Your task to perform on an android device: allow cookies in the chrome app Image 0: 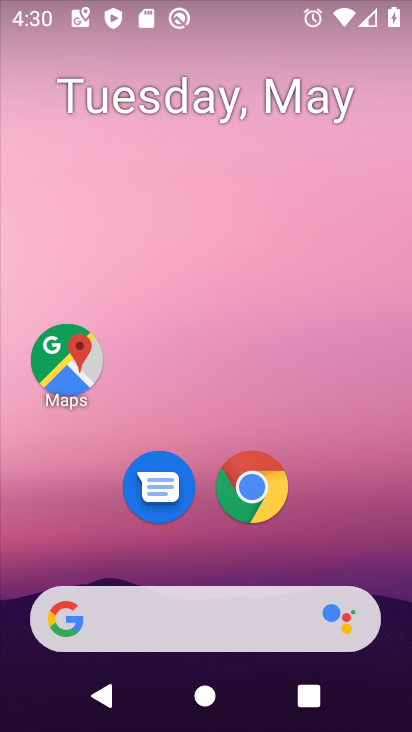
Step 0: click (251, 482)
Your task to perform on an android device: allow cookies in the chrome app Image 1: 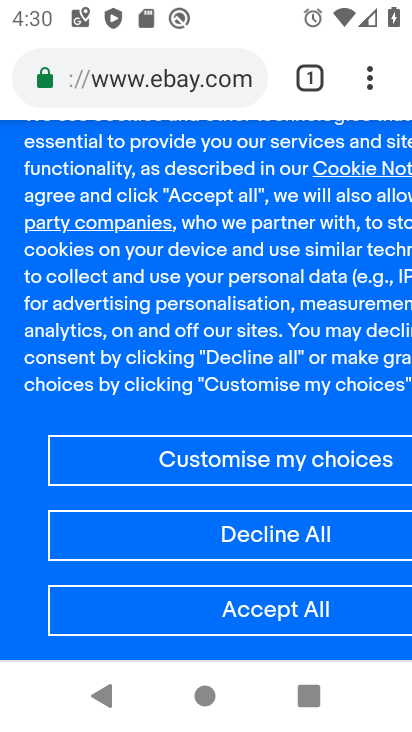
Step 1: drag from (368, 84) to (160, 540)
Your task to perform on an android device: allow cookies in the chrome app Image 2: 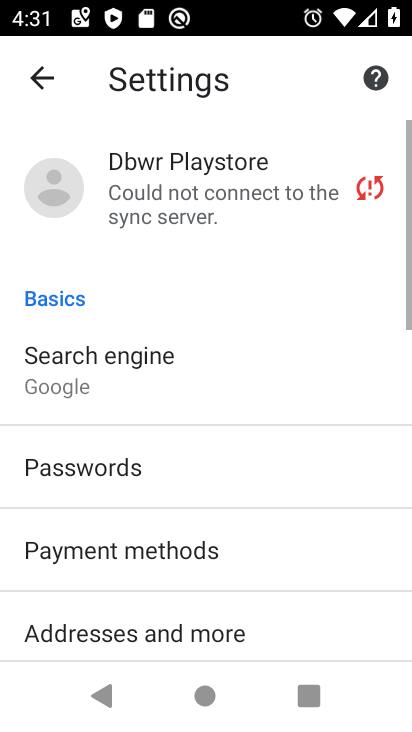
Step 2: drag from (191, 564) to (336, 79)
Your task to perform on an android device: allow cookies in the chrome app Image 3: 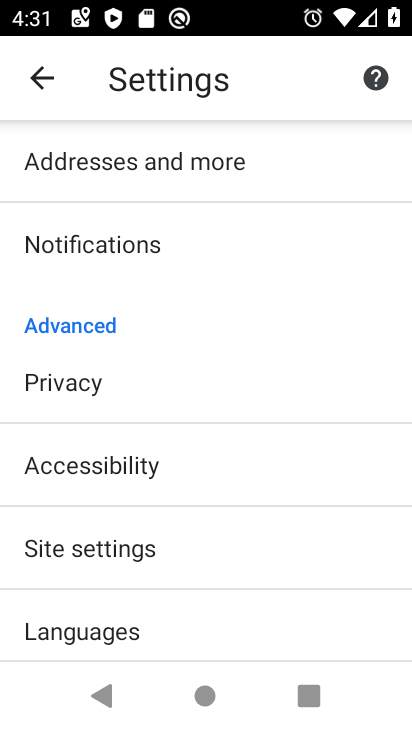
Step 3: click (149, 537)
Your task to perform on an android device: allow cookies in the chrome app Image 4: 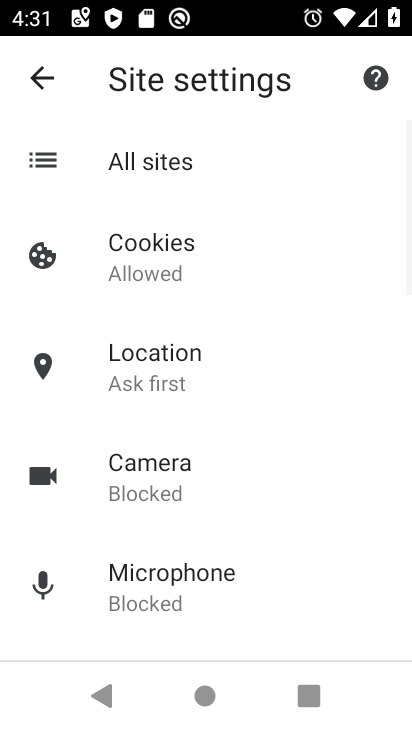
Step 4: drag from (212, 550) to (307, 177)
Your task to perform on an android device: allow cookies in the chrome app Image 5: 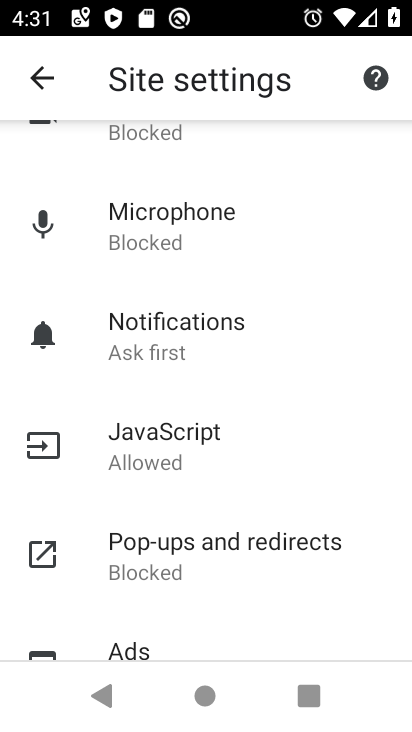
Step 5: drag from (207, 459) to (317, 249)
Your task to perform on an android device: allow cookies in the chrome app Image 6: 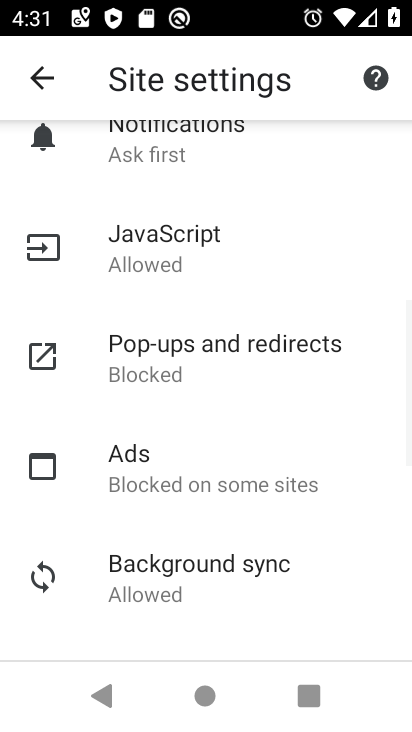
Step 6: drag from (195, 495) to (172, 635)
Your task to perform on an android device: allow cookies in the chrome app Image 7: 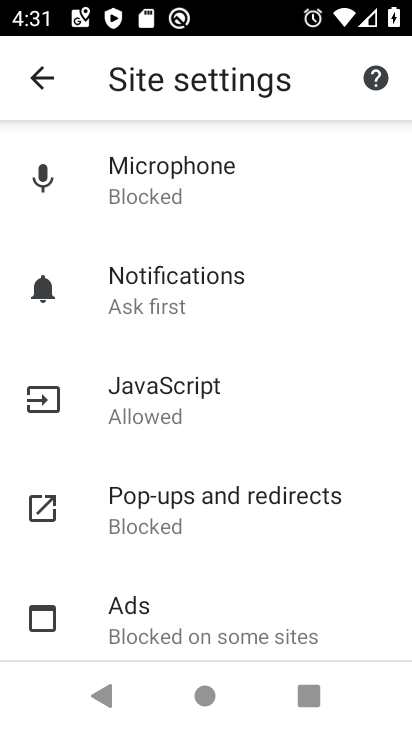
Step 7: drag from (196, 312) to (180, 561)
Your task to perform on an android device: allow cookies in the chrome app Image 8: 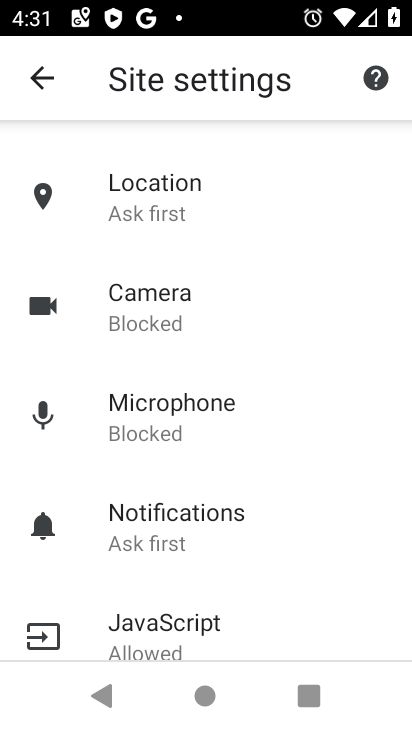
Step 8: drag from (230, 265) to (215, 585)
Your task to perform on an android device: allow cookies in the chrome app Image 9: 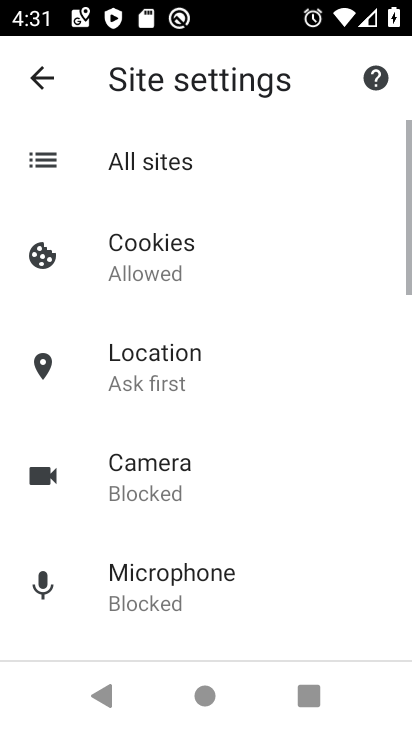
Step 9: click (172, 284)
Your task to perform on an android device: allow cookies in the chrome app Image 10: 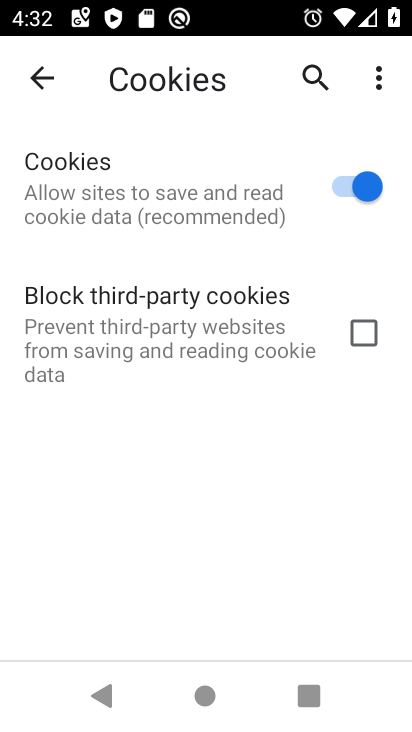
Step 10: task complete